Your task to perform on an android device: toggle pop-ups in chrome Image 0: 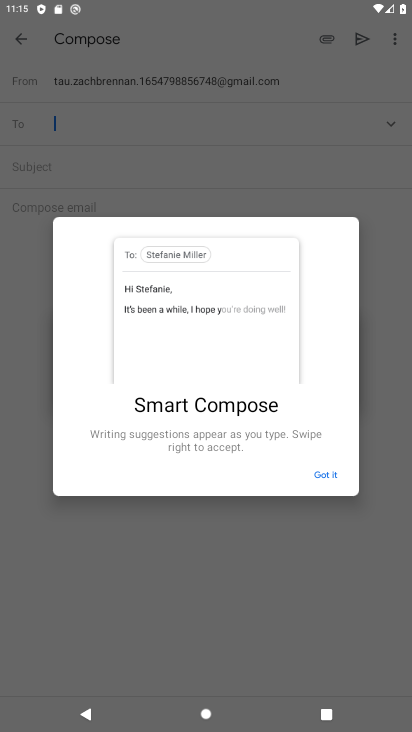
Step 0: press home button
Your task to perform on an android device: toggle pop-ups in chrome Image 1: 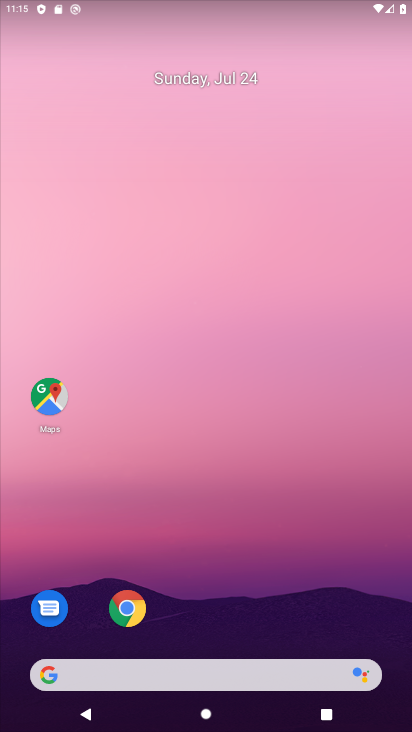
Step 1: click (125, 606)
Your task to perform on an android device: toggle pop-ups in chrome Image 2: 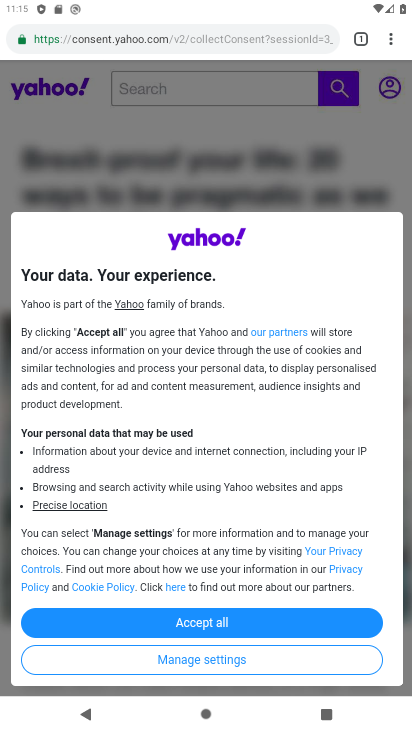
Step 2: drag from (392, 42) to (254, 479)
Your task to perform on an android device: toggle pop-ups in chrome Image 3: 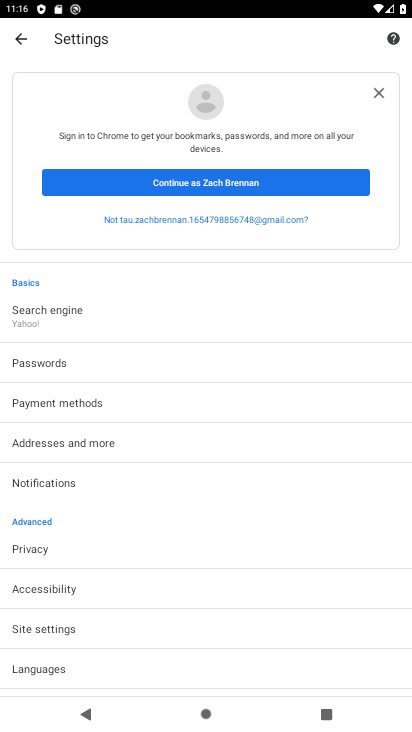
Step 3: click (60, 629)
Your task to perform on an android device: toggle pop-ups in chrome Image 4: 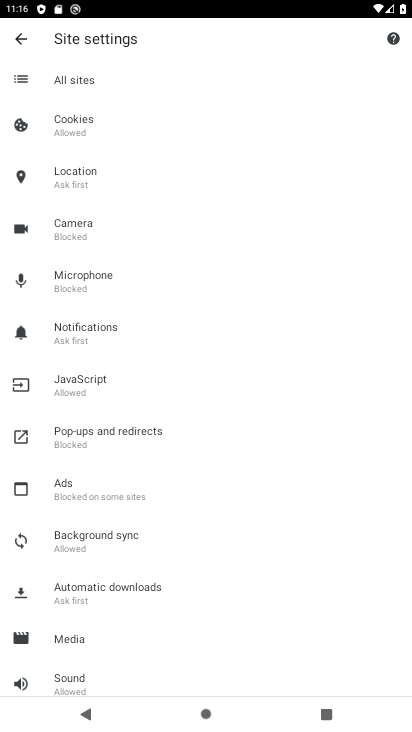
Step 4: click (78, 438)
Your task to perform on an android device: toggle pop-ups in chrome Image 5: 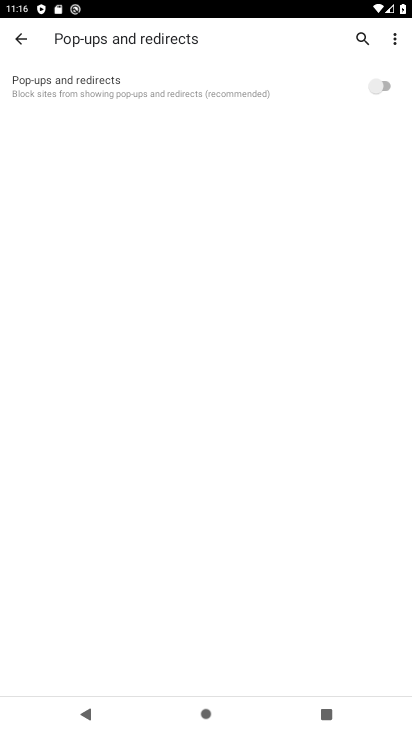
Step 5: click (378, 84)
Your task to perform on an android device: toggle pop-ups in chrome Image 6: 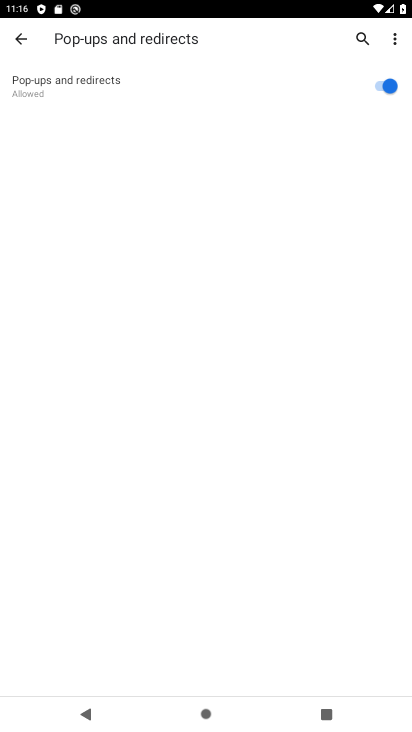
Step 6: task complete